Your task to perform on an android device: Go to Reddit.com Image 0: 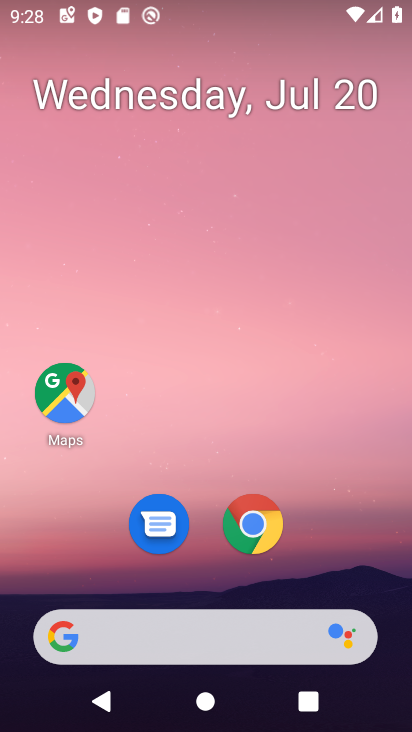
Step 0: press home button
Your task to perform on an android device: Go to Reddit.com Image 1: 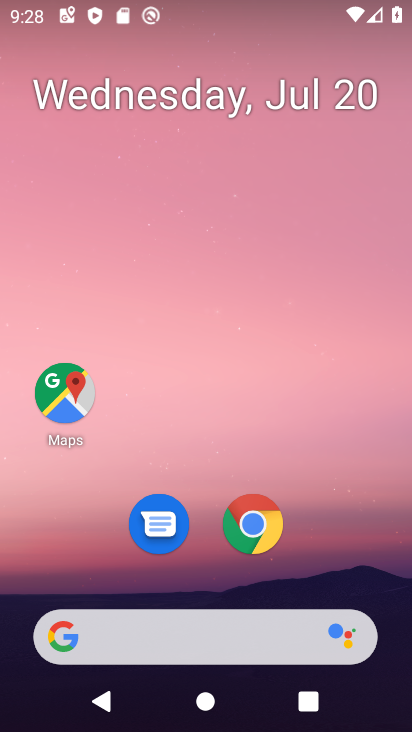
Step 1: click (249, 533)
Your task to perform on an android device: Go to Reddit.com Image 2: 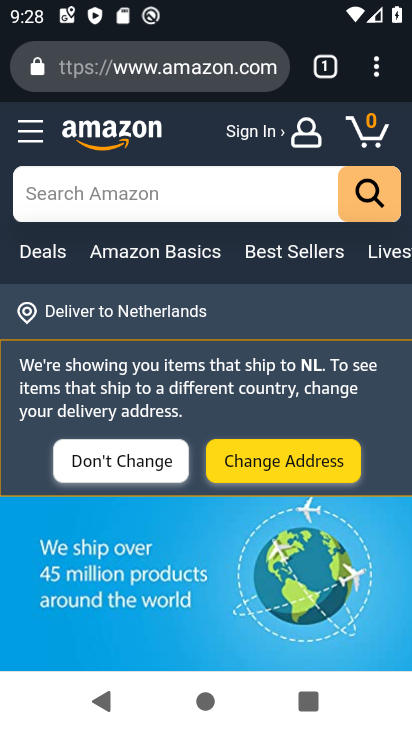
Step 2: drag from (372, 77) to (188, 138)
Your task to perform on an android device: Go to Reddit.com Image 3: 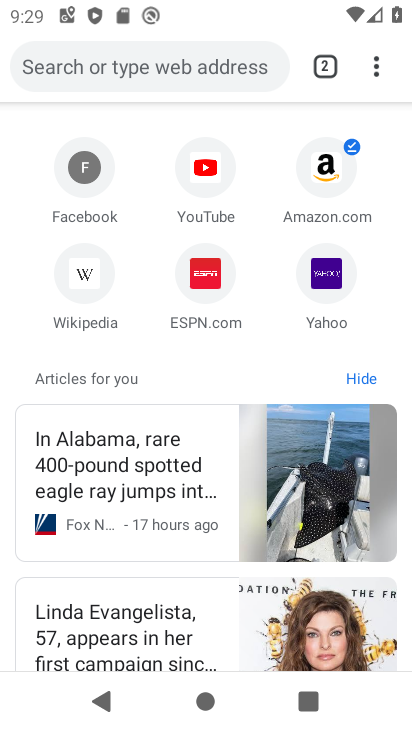
Step 3: click (126, 66)
Your task to perform on an android device: Go to Reddit.com Image 4: 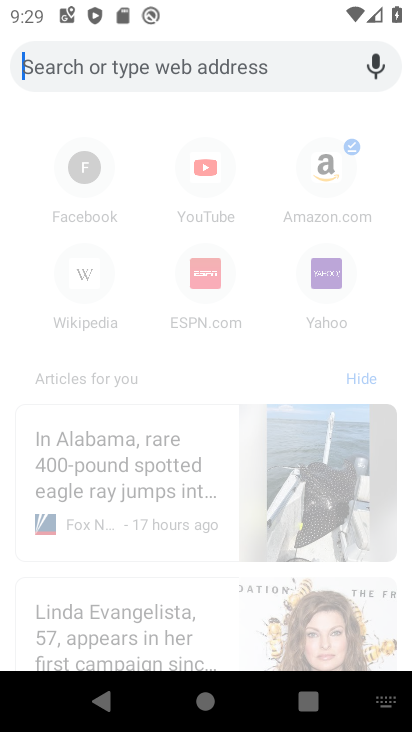
Step 4: type "reddit.com"
Your task to perform on an android device: Go to Reddit.com Image 5: 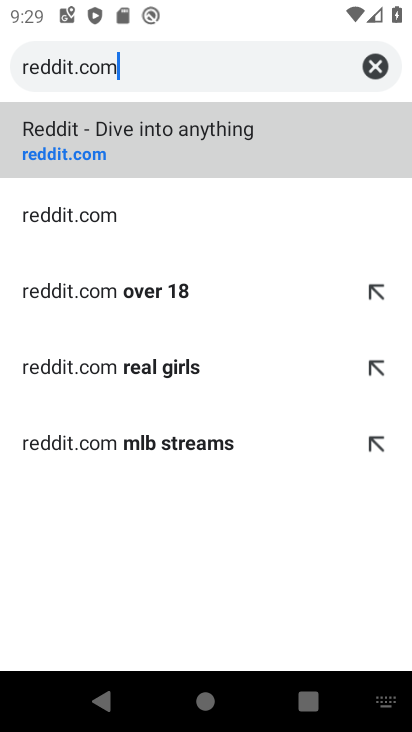
Step 5: click (162, 146)
Your task to perform on an android device: Go to Reddit.com Image 6: 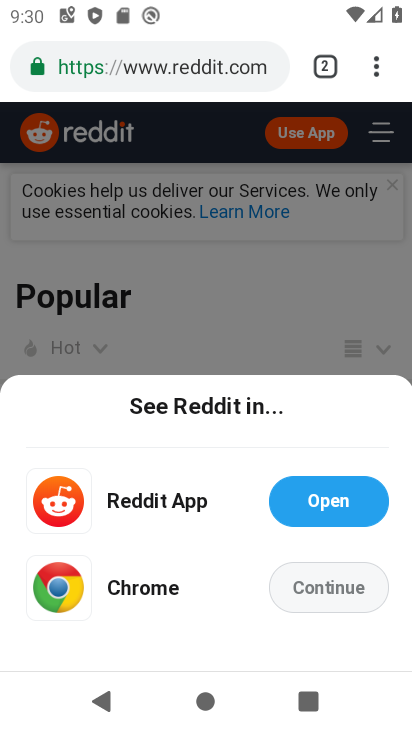
Step 6: task complete